Your task to perform on an android device: What time is it in New York? Image 0: 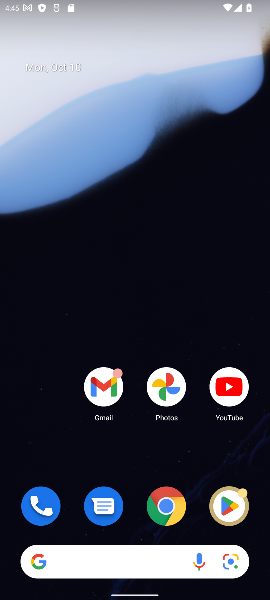
Step 0: drag from (147, 460) to (177, 0)
Your task to perform on an android device: What time is it in New York? Image 1: 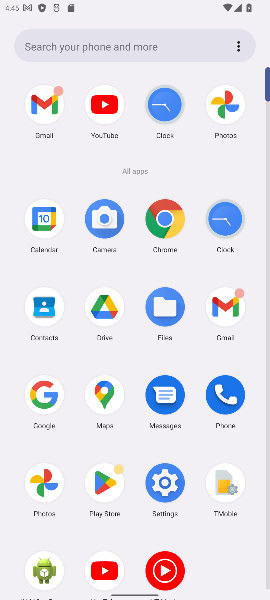
Step 1: click (35, 401)
Your task to perform on an android device: What time is it in New York? Image 2: 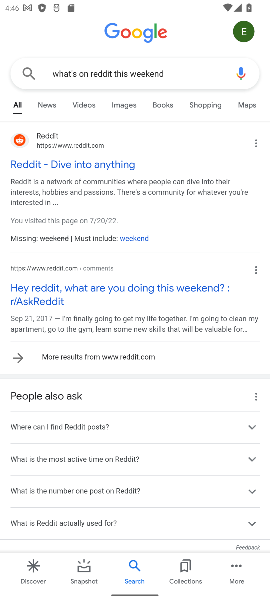
Step 2: click (80, 76)
Your task to perform on an android device: What time is it in New York? Image 3: 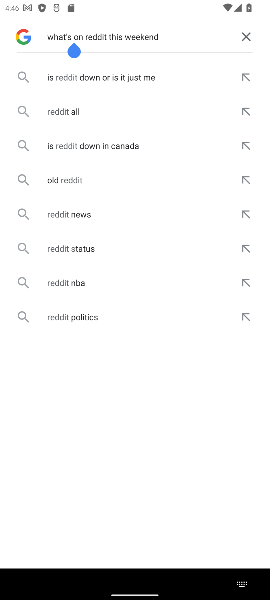
Step 3: click (246, 41)
Your task to perform on an android device: What time is it in New York? Image 4: 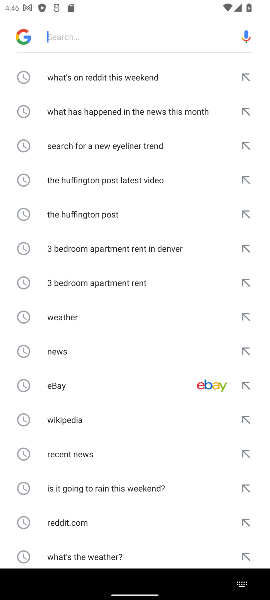
Step 4: type "What time is it in New York?"
Your task to perform on an android device: What time is it in New York? Image 5: 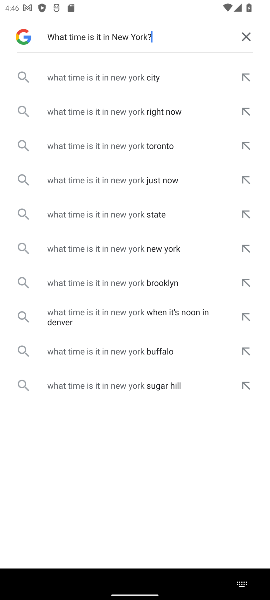
Step 5: click (101, 78)
Your task to perform on an android device: What time is it in New York? Image 6: 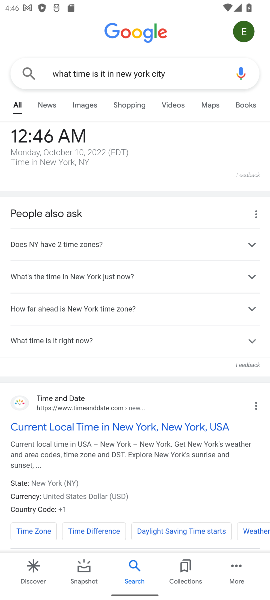
Step 6: task complete